Your task to perform on an android device: Go to network settings Image 0: 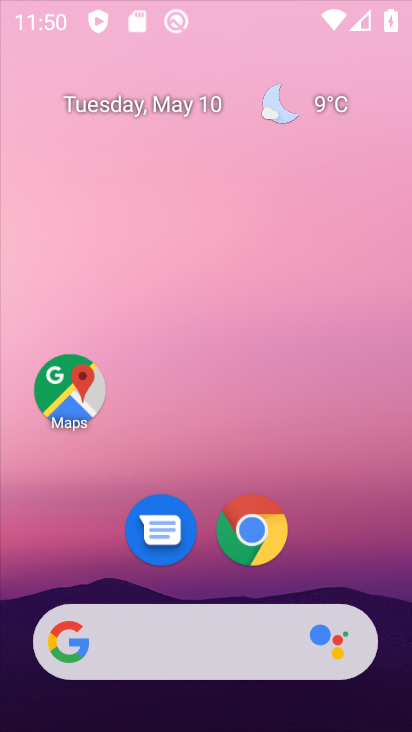
Step 0: press home button
Your task to perform on an android device: Go to network settings Image 1: 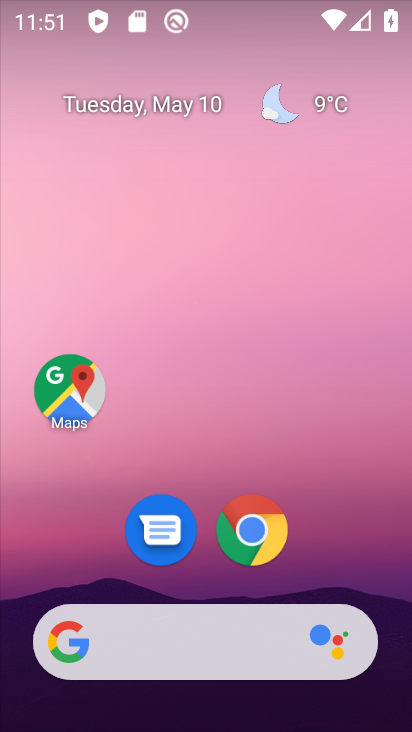
Step 1: drag from (340, 567) to (379, 17)
Your task to perform on an android device: Go to network settings Image 2: 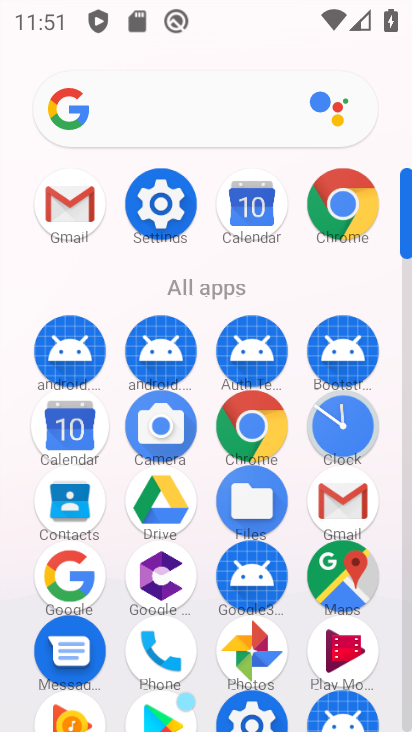
Step 2: click (188, 214)
Your task to perform on an android device: Go to network settings Image 3: 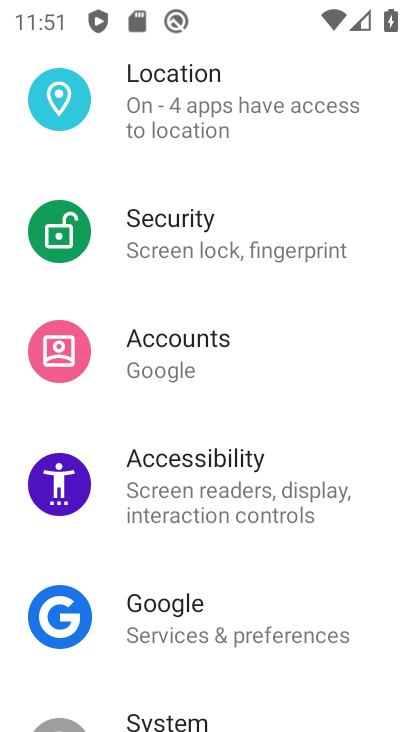
Step 3: drag from (235, 550) to (247, 704)
Your task to perform on an android device: Go to network settings Image 4: 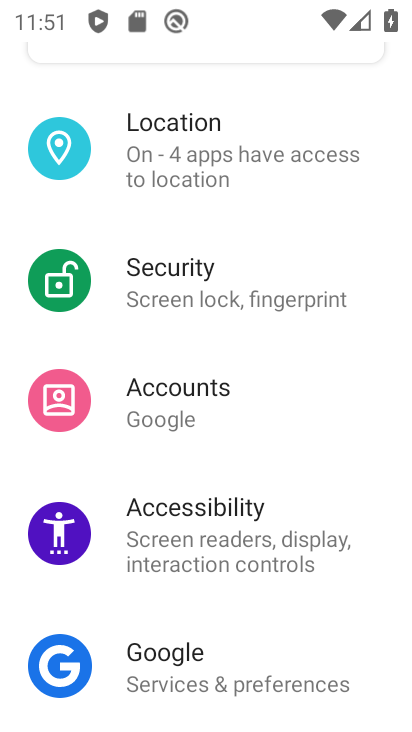
Step 4: drag from (213, 196) to (282, 683)
Your task to perform on an android device: Go to network settings Image 5: 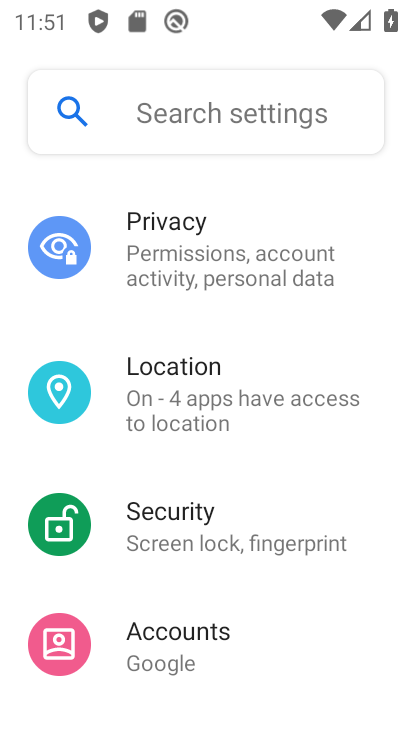
Step 5: drag from (240, 270) to (308, 722)
Your task to perform on an android device: Go to network settings Image 6: 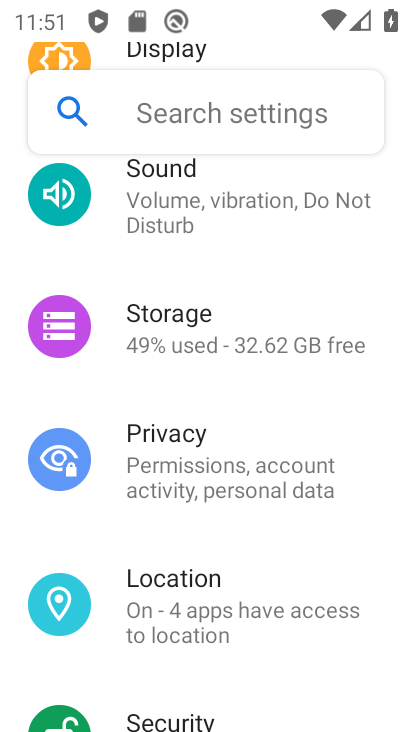
Step 6: drag from (357, 283) to (326, 707)
Your task to perform on an android device: Go to network settings Image 7: 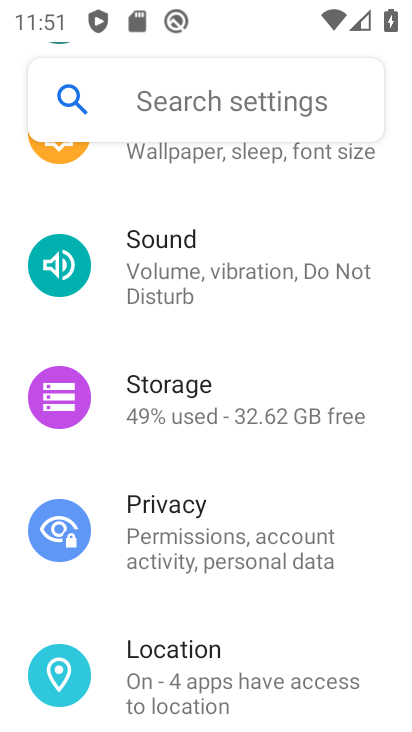
Step 7: drag from (326, 230) to (322, 726)
Your task to perform on an android device: Go to network settings Image 8: 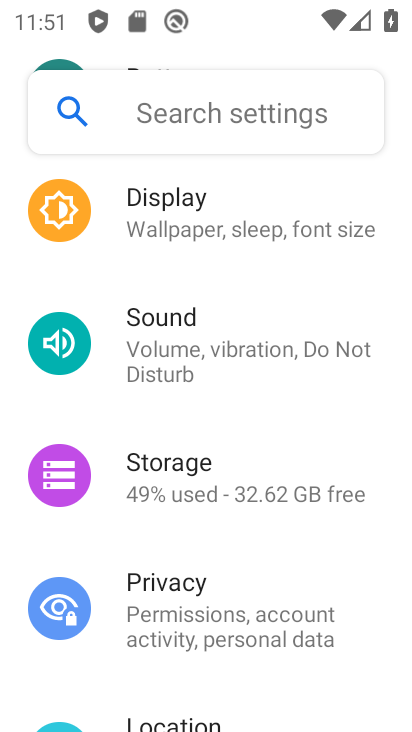
Step 8: drag from (330, 295) to (284, 724)
Your task to perform on an android device: Go to network settings Image 9: 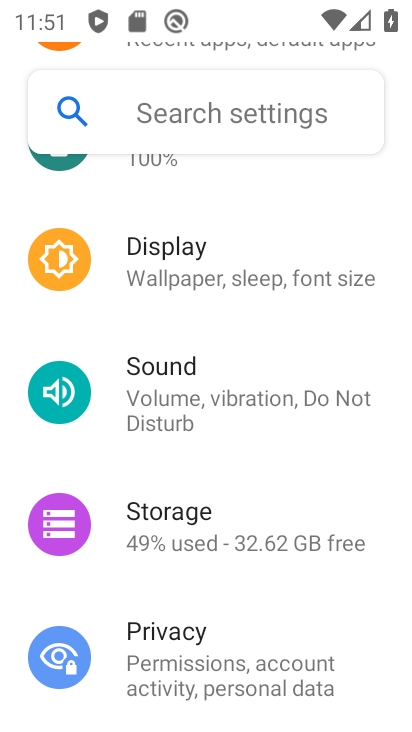
Step 9: drag from (286, 214) to (390, 725)
Your task to perform on an android device: Go to network settings Image 10: 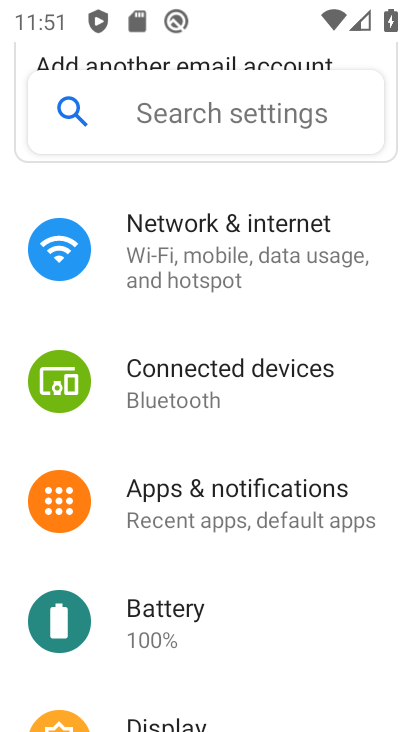
Step 10: click (162, 240)
Your task to perform on an android device: Go to network settings Image 11: 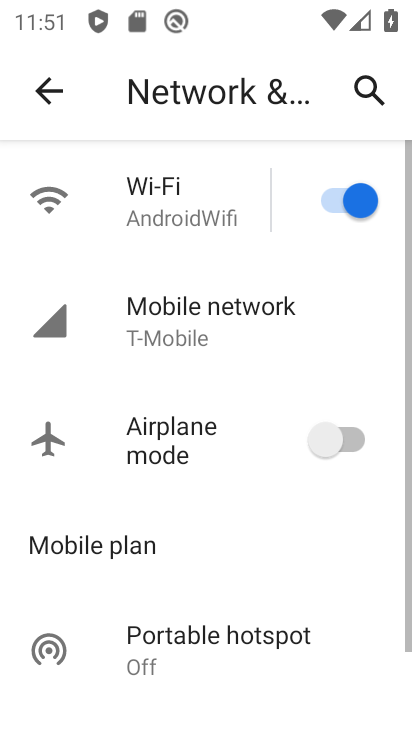
Step 11: task complete